Your task to perform on an android device: open app "The Home Depot" (install if not already installed), go to login, and select forgot password Image 0: 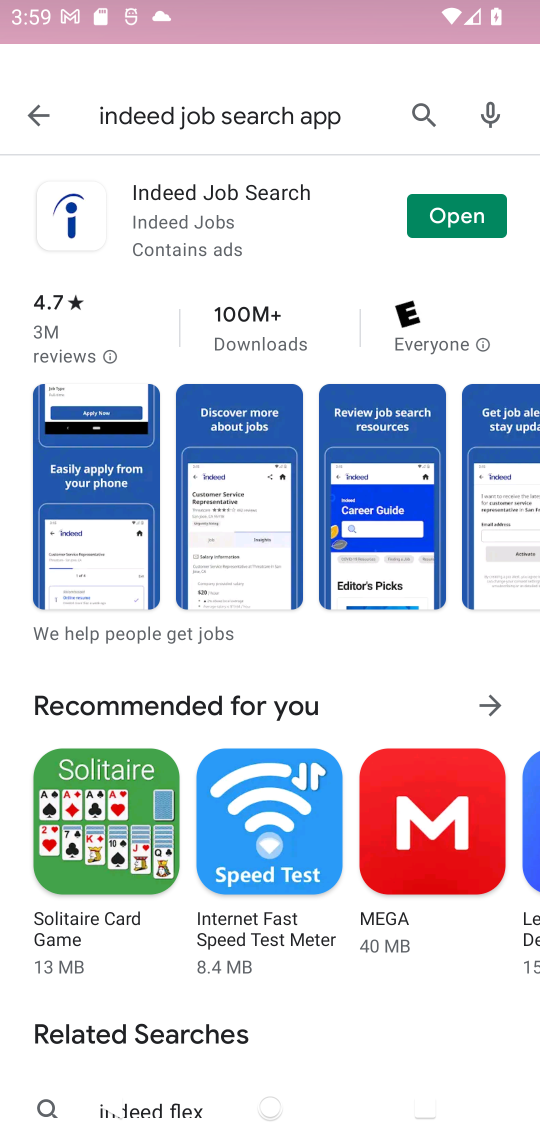
Step 0: press home button
Your task to perform on an android device: open app "The Home Depot" (install if not already installed), go to login, and select forgot password Image 1: 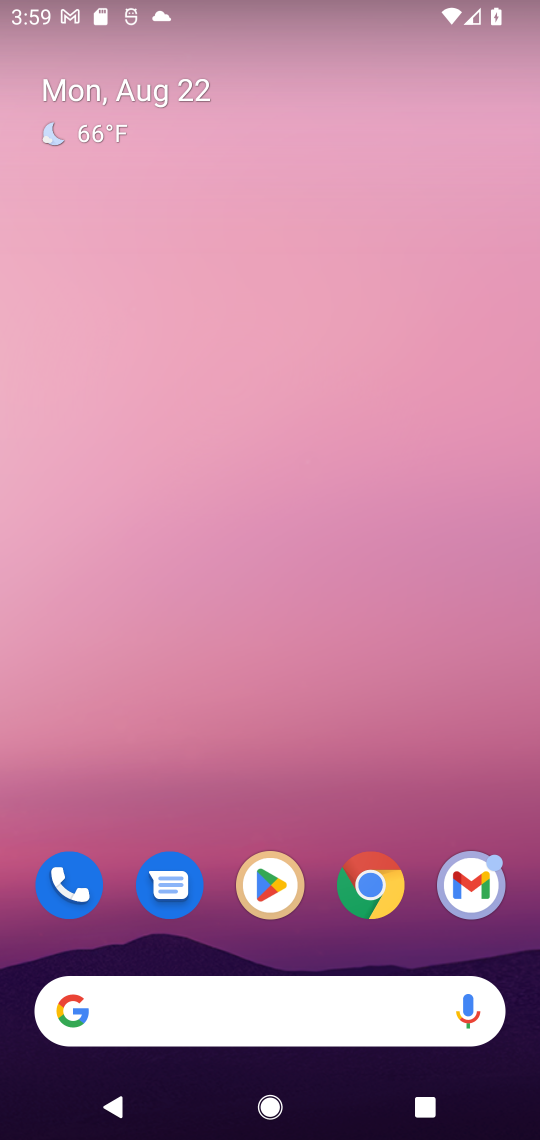
Step 1: click (268, 878)
Your task to perform on an android device: open app "The Home Depot" (install if not already installed), go to login, and select forgot password Image 2: 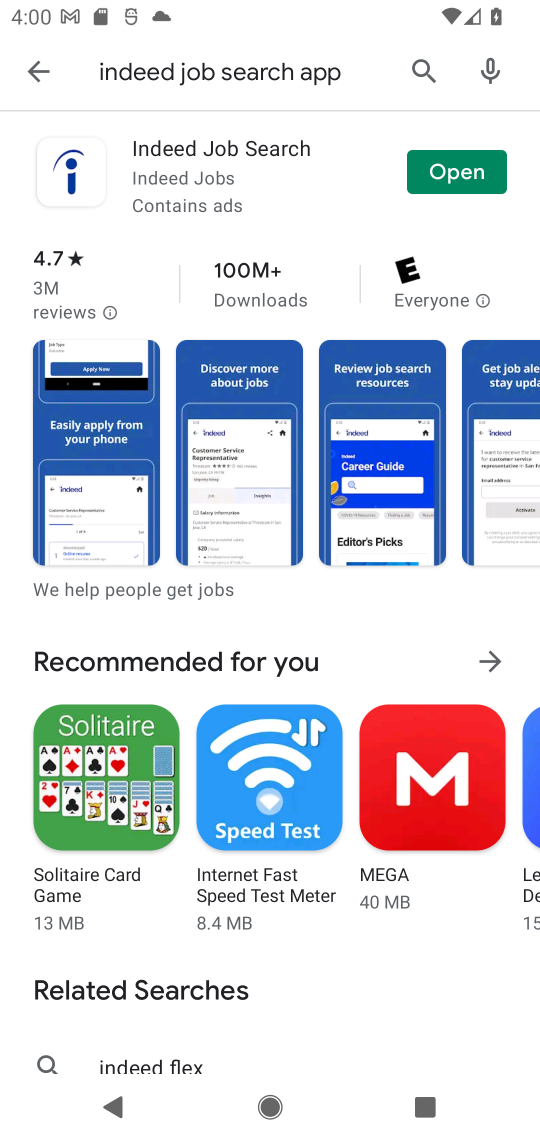
Step 2: click (429, 66)
Your task to perform on an android device: open app "The Home Depot" (install if not already installed), go to login, and select forgot password Image 3: 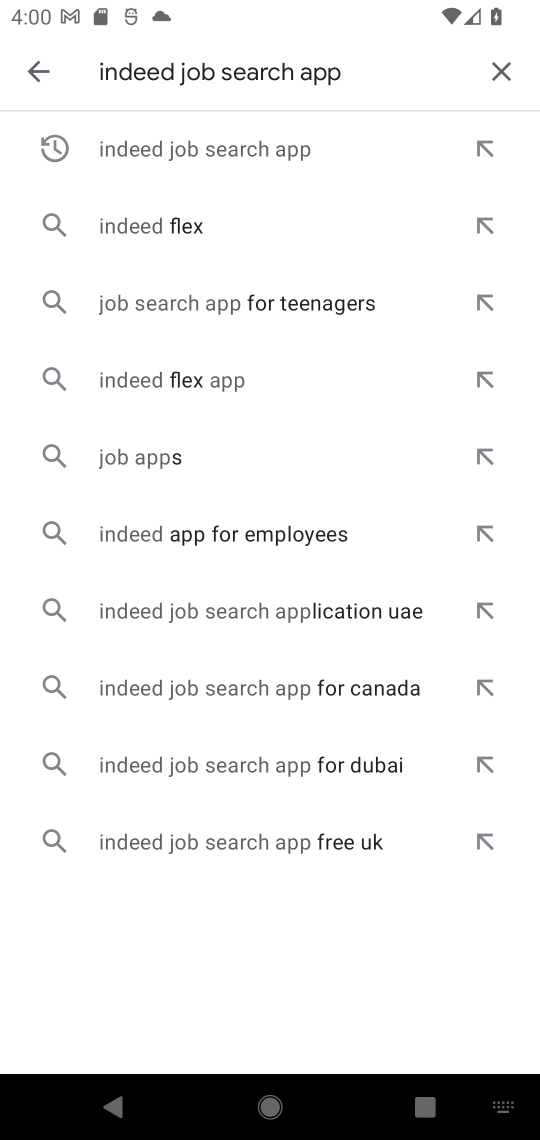
Step 3: click (501, 66)
Your task to perform on an android device: open app "The Home Depot" (install if not already installed), go to login, and select forgot password Image 4: 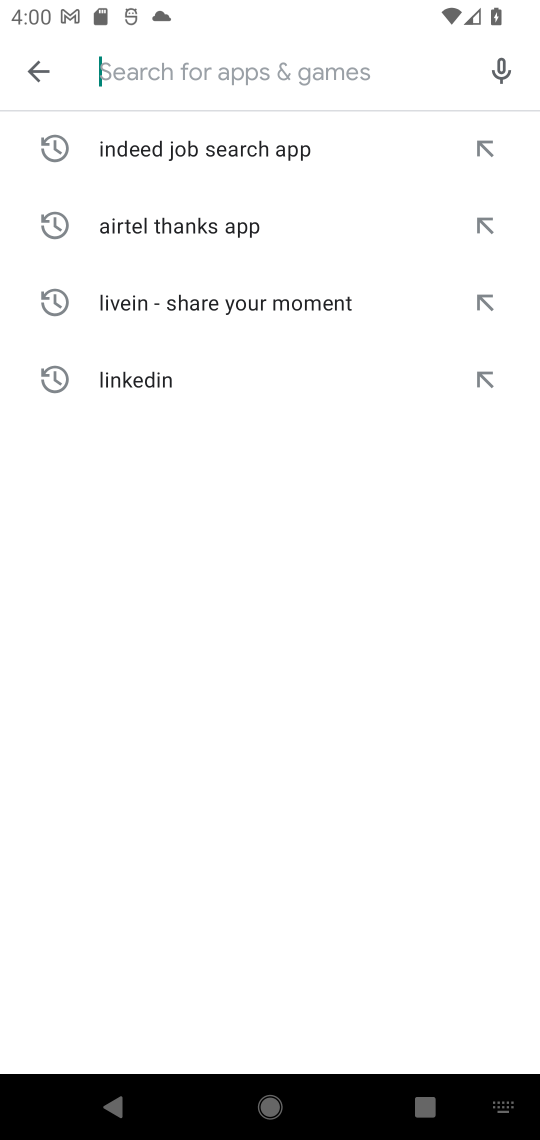
Step 4: type "The Home Depot"
Your task to perform on an android device: open app "The Home Depot" (install if not already installed), go to login, and select forgot password Image 5: 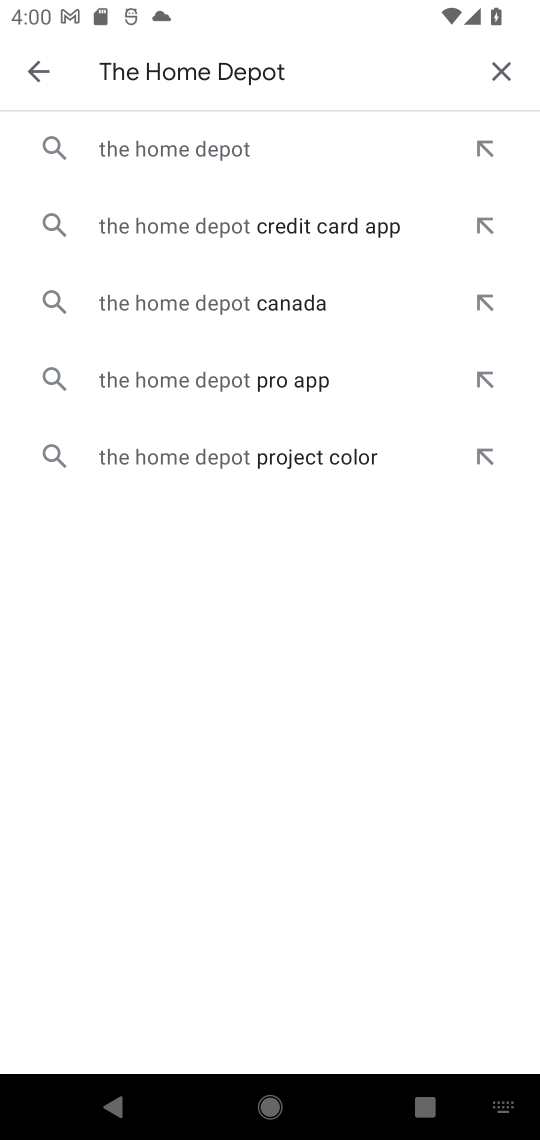
Step 5: click (265, 145)
Your task to perform on an android device: open app "The Home Depot" (install if not already installed), go to login, and select forgot password Image 6: 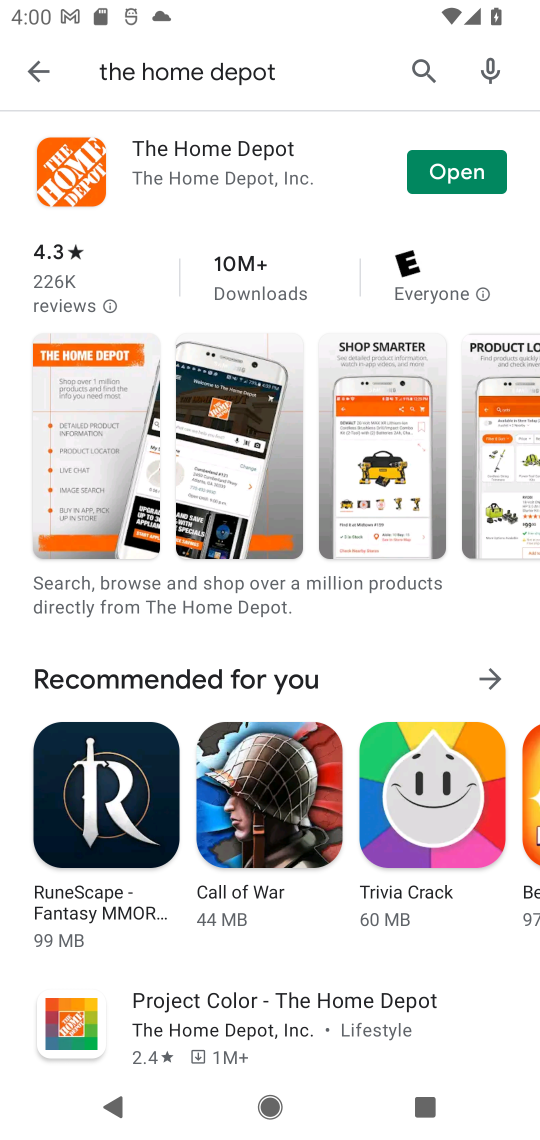
Step 6: click (464, 174)
Your task to perform on an android device: open app "The Home Depot" (install if not already installed), go to login, and select forgot password Image 7: 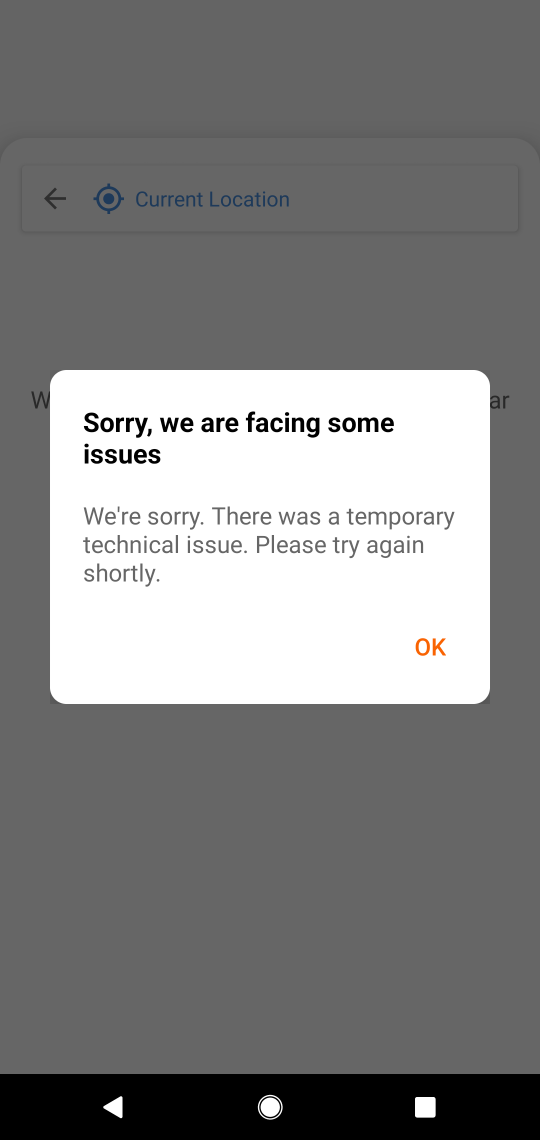
Step 7: click (422, 644)
Your task to perform on an android device: open app "The Home Depot" (install if not already installed), go to login, and select forgot password Image 8: 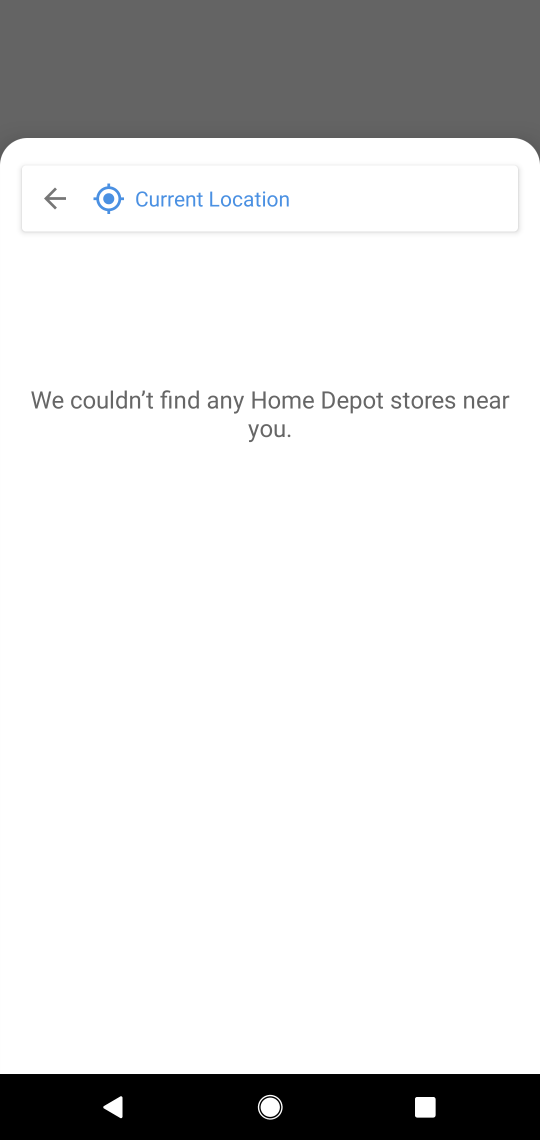
Step 8: task complete